Your task to perform on an android device: turn smart compose on in the gmail app Image 0: 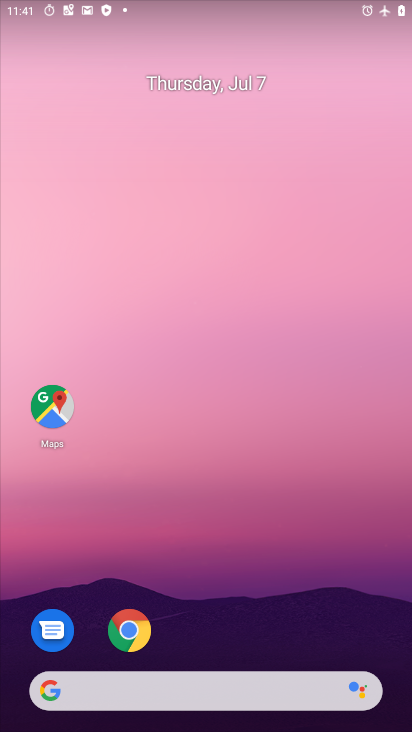
Step 0: drag from (191, 633) to (177, 154)
Your task to perform on an android device: turn smart compose on in the gmail app Image 1: 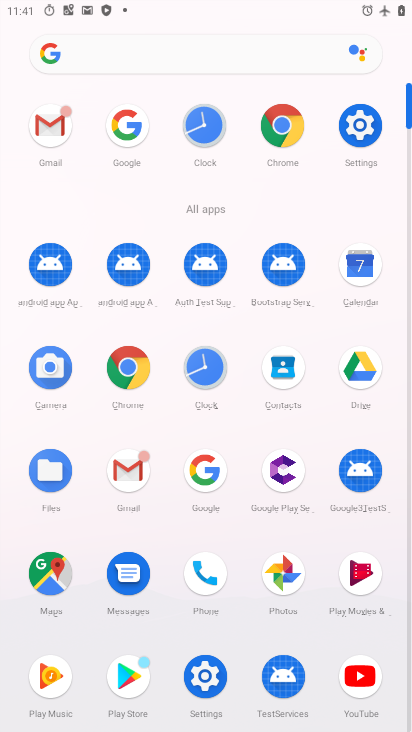
Step 1: click (56, 138)
Your task to perform on an android device: turn smart compose on in the gmail app Image 2: 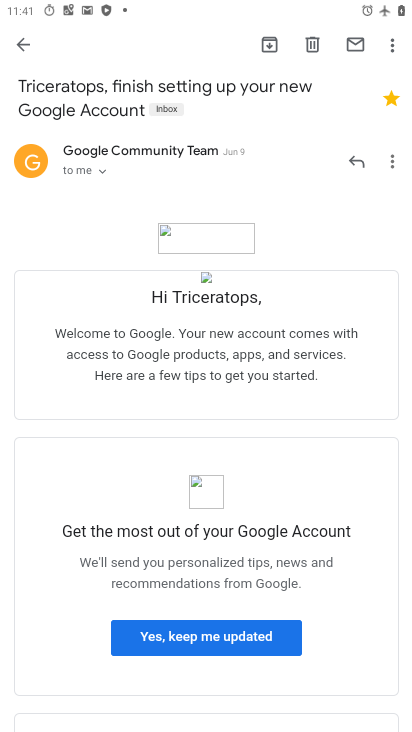
Step 2: click (27, 42)
Your task to perform on an android device: turn smart compose on in the gmail app Image 3: 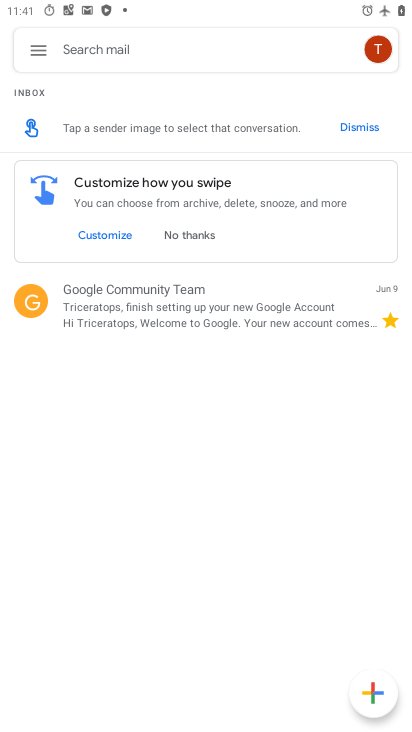
Step 3: click (25, 44)
Your task to perform on an android device: turn smart compose on in the gmail app Image 4: 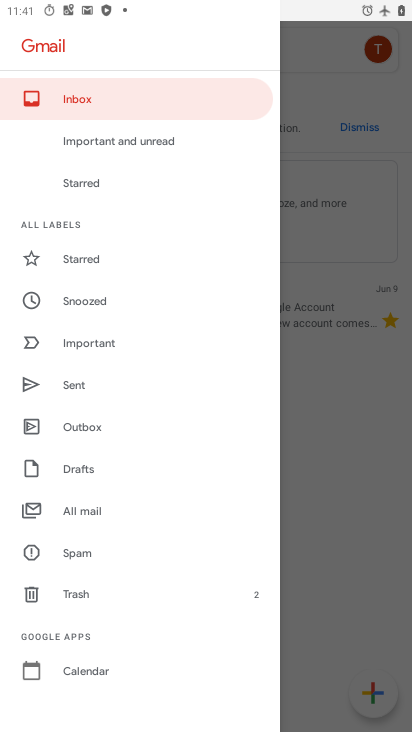
Step 4: drag from (117, 410) to (121, 301)
Your task to perform on an android device: turn smart compose on in the gmail app Image 5: 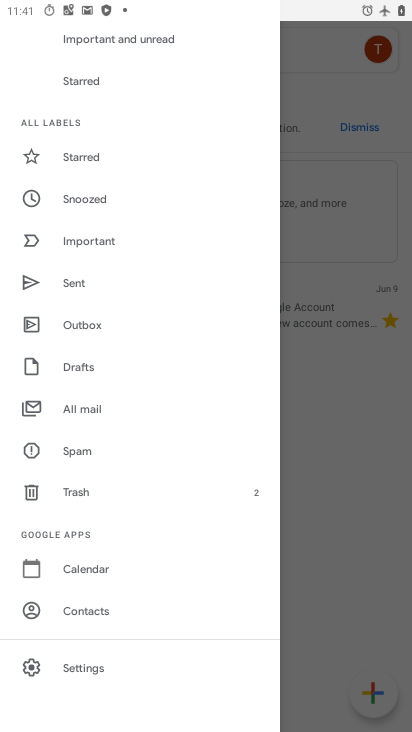
Step 5: click (81, 662)
Your task to perform on an android device: turn smart compose on in the gmail app Image 6: 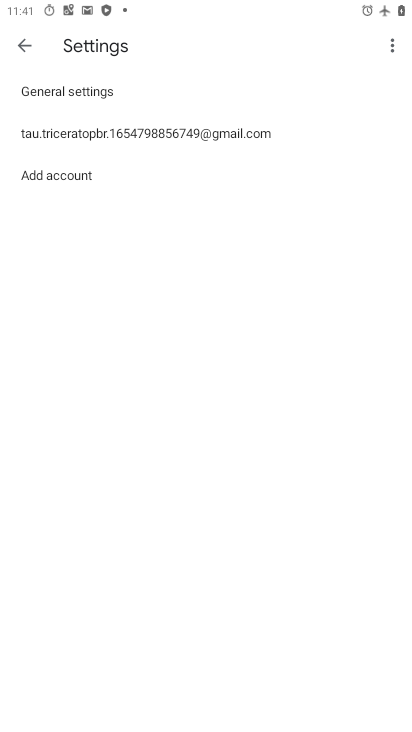
Step 6: click (119, 140)
Your task to perform on an android device: turn smart compose on in the gmail app Image 7: 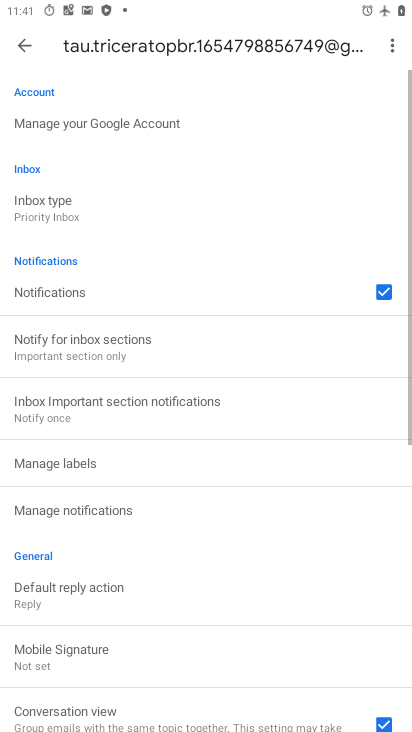
Step 7: task complete